Your task to perform on an android device: What's the weather going to be tomorrow? Image 0: 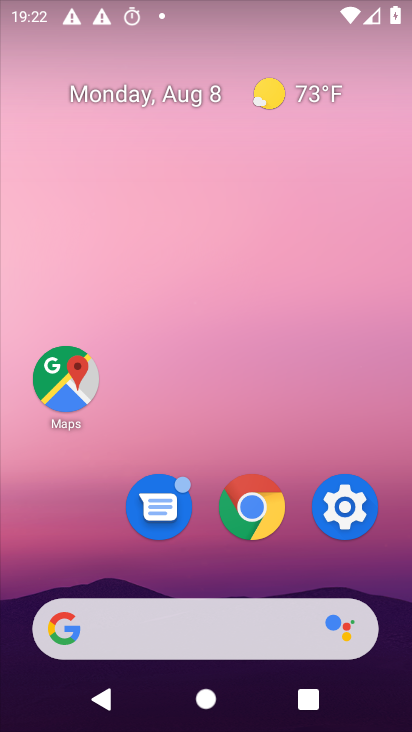
Step 0: drag from (293, 675) to (274, 229)
Your task to perform on an android device: What's the weather going to be tomorrow? Image 1: 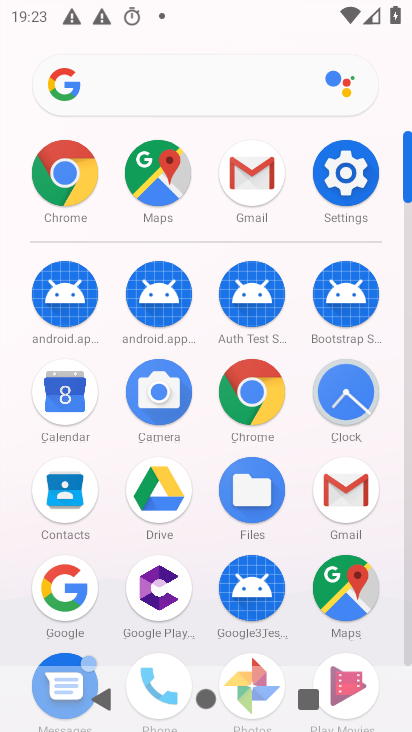
Step 1: click (187, 98)
Your task to perform on an android device: What's the weather going to be tomorrow? Image 2: 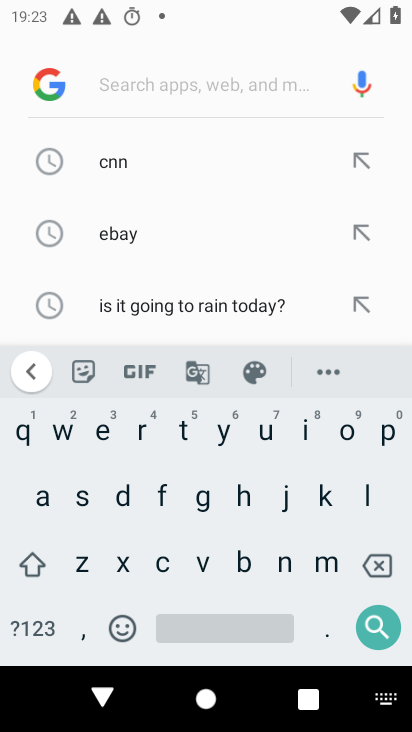
Step 2: click (60, 434)
Your task to perform on an android device: What's the weather going to be tomorrow? Image 3: 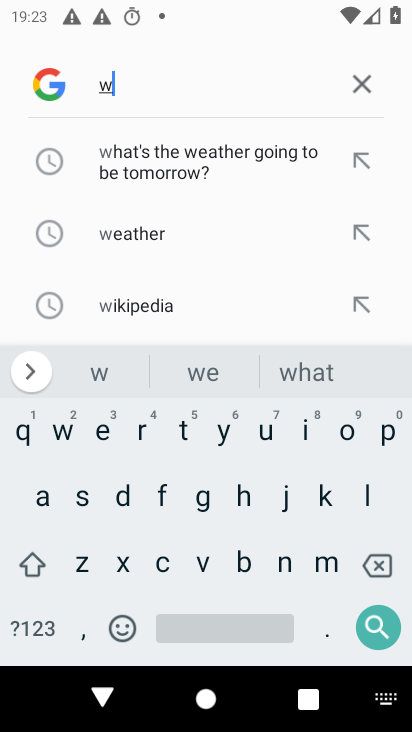
Step 3: click (201, 161)
Your task to perform on an android device: What's the weather going to be tomorrow? Image 4: 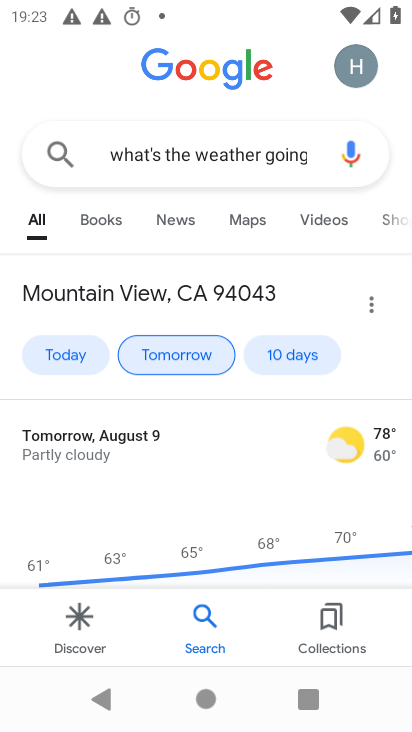
Step 4: task complete